Your task to perform on an android device: toggle sleep mode Image 0: 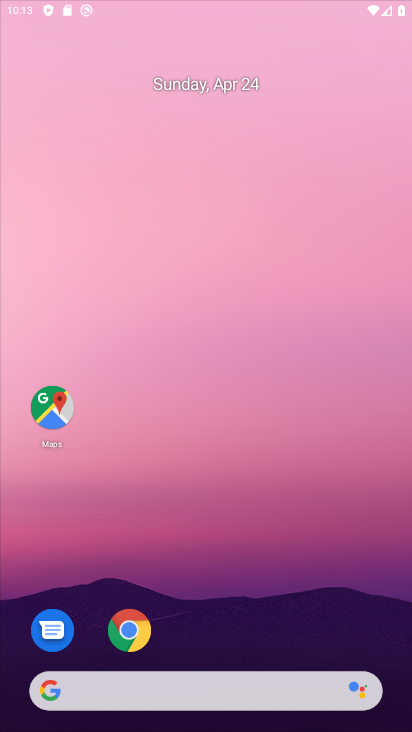
Step 0: drag from (311, 211) to (357, 96)
Your task to perform on an android device: toggle sleep mode Image 1: 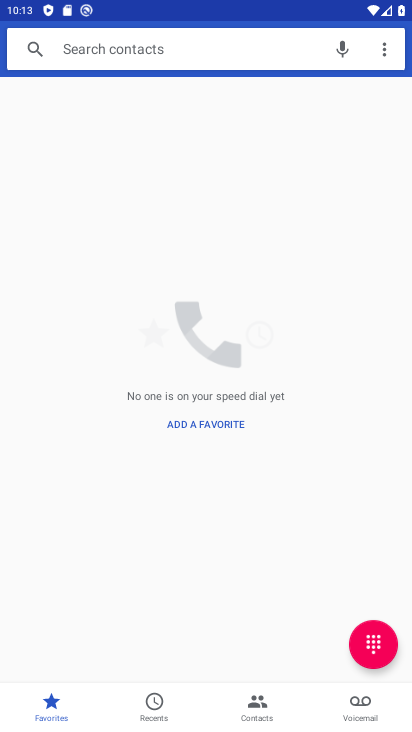
Step 1: press back button
Your task to perform on an android device: toggle sleep mode Image 2: 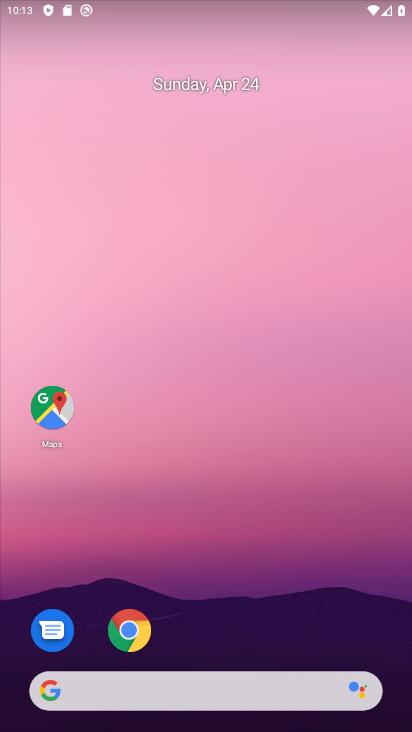
Step 2: drag from (204, 667) to (351, 104)
Your task to perform on an android device: toggle sleep mode Image 3: 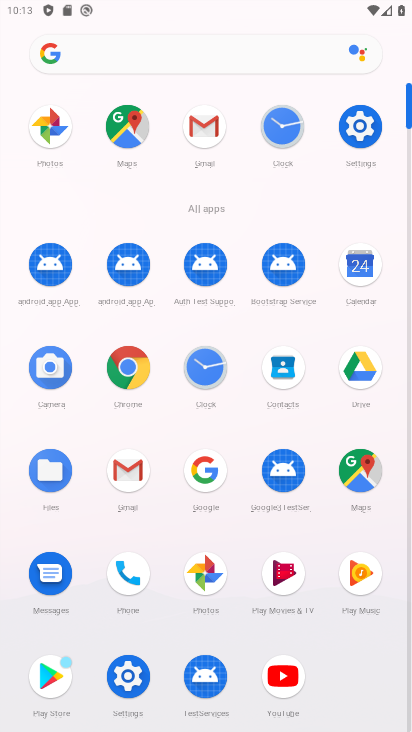
Step 3: click (362, 120)
Your task to perform on an android device: toggle sleep mode Image 4: 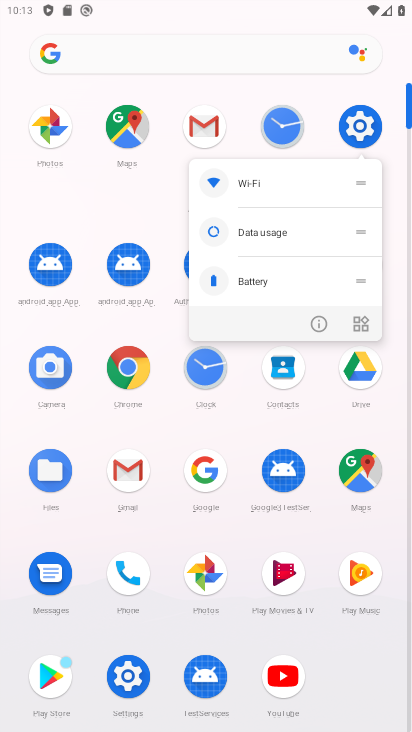
Step 4: click (373, 130)
Your task to perform on an android device: toggle sleep mode Image 5: 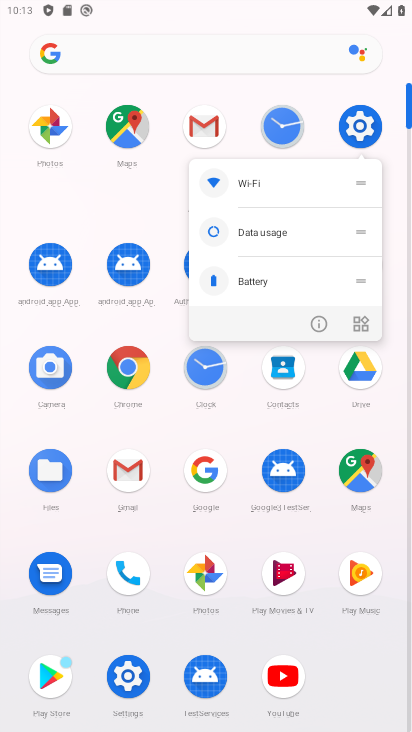
Step 5: click (134, 665)
Your task to perform on an android device: toggle sleep mode Image 6: 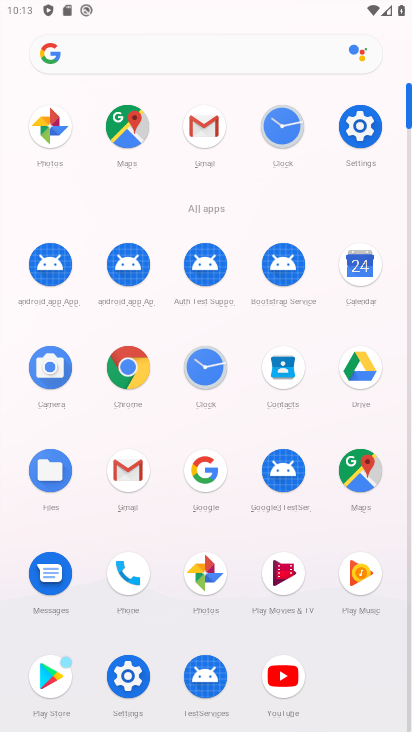
Step 6: click (130, 669)
Your task to perform on an android device: toggle sleep mode Image 7: 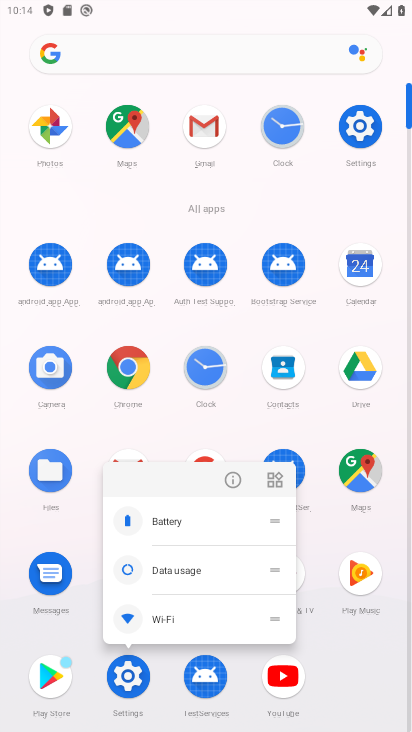
Step 7: click (127, 669)
Your task to perform on an android device: toggle sleep mode Image 8: 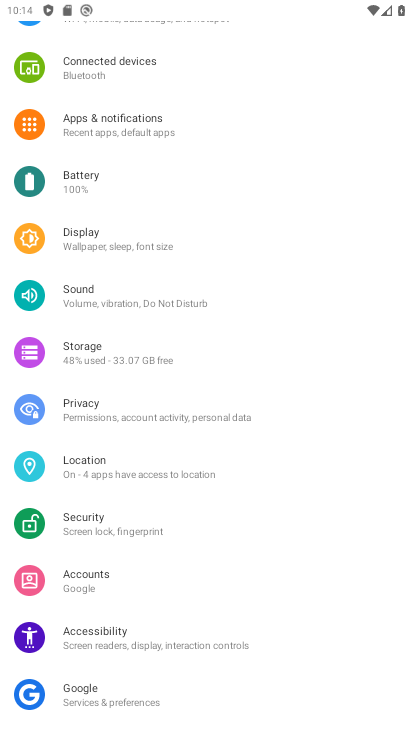
Step 8: click (131, 245)
Your task to perform on an android device: toggle sleep mode Image 9: 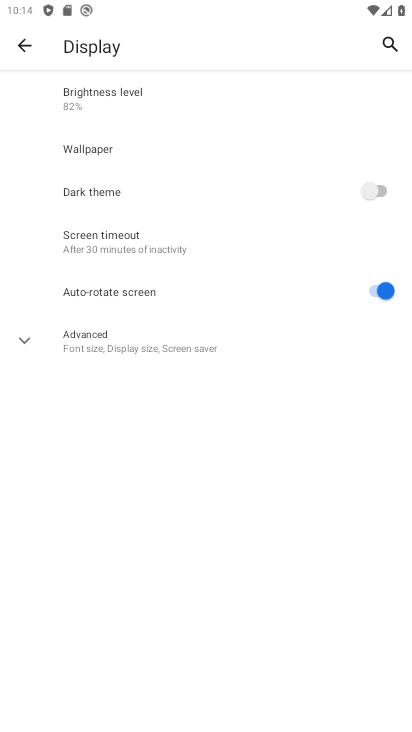
Step 9: click (201, 352)
Your task to perform on an android device: toggle sleep mode Image 10: 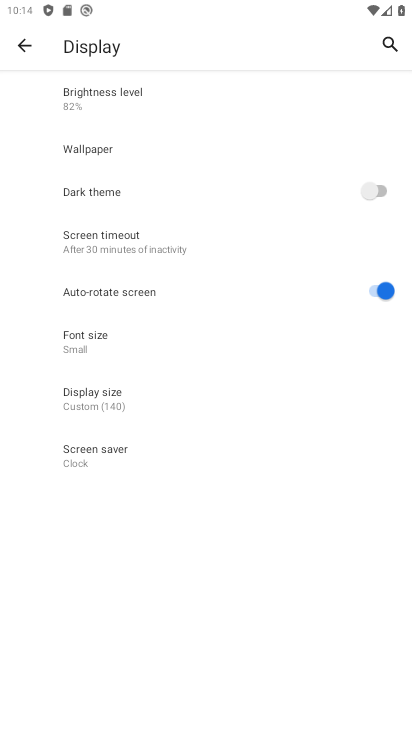
Step 10: task complete